Your task to perform on an android device: open app "PUBG MOBILE" Image 0: 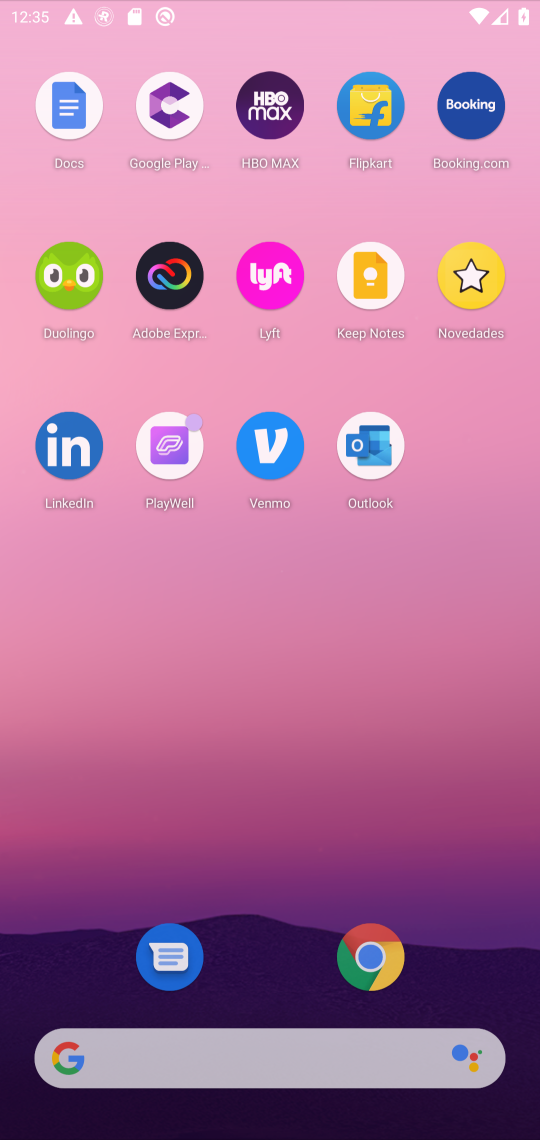
Step 0: press home button
Your task to perform on an android device: open app "PUBG MOBILE" Image 1: 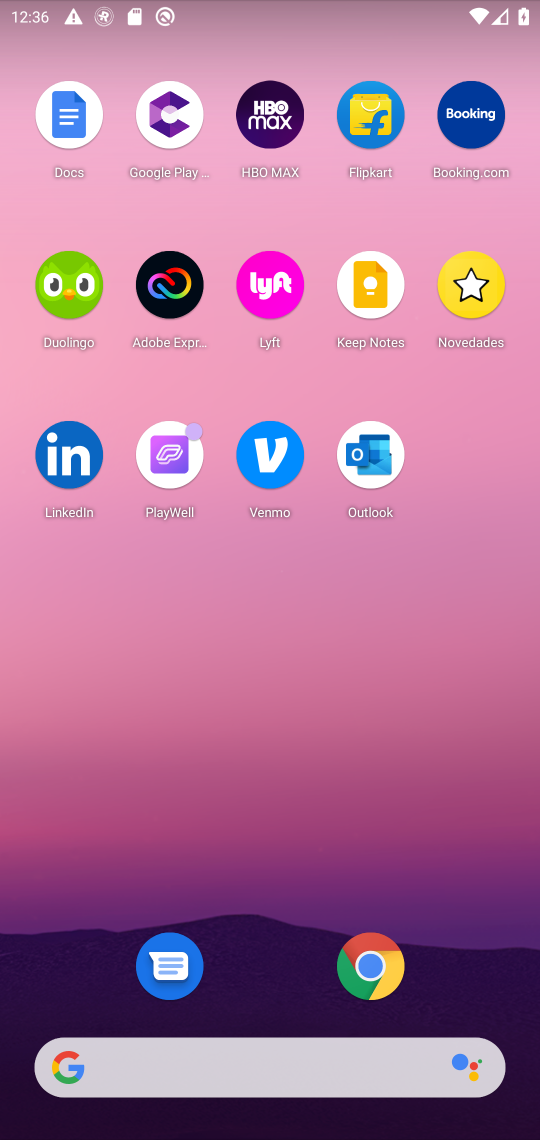
Step 1: drag from (461, 976) to (483, 101)
Your task to perform on an android device: open app "PUBG MOBILE" Image 2: 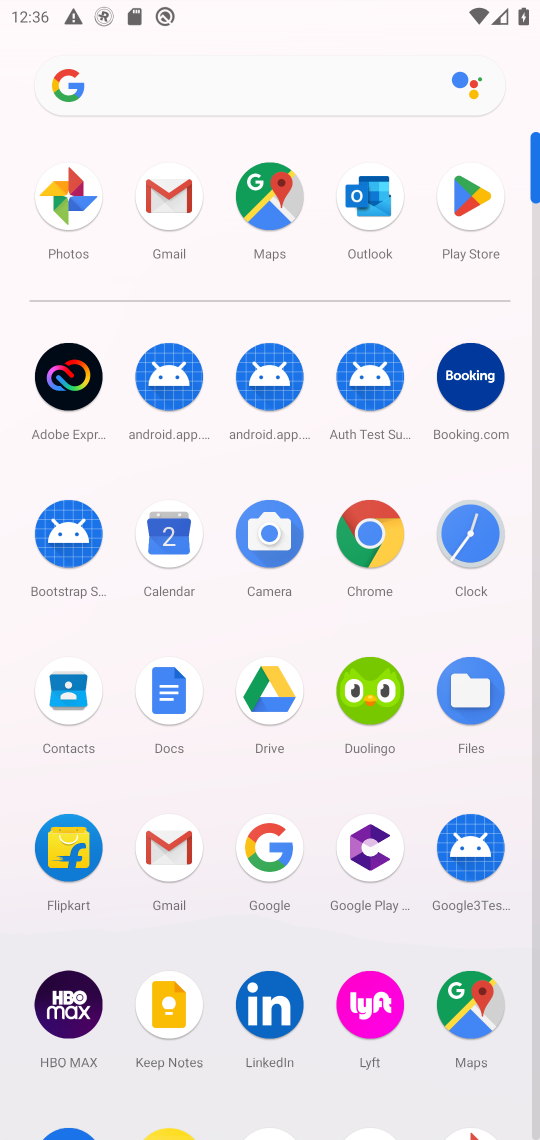
Step 2: click (464, 211)
Your task to perform on an android device: open app "PUBG MOBILE" Image 3: 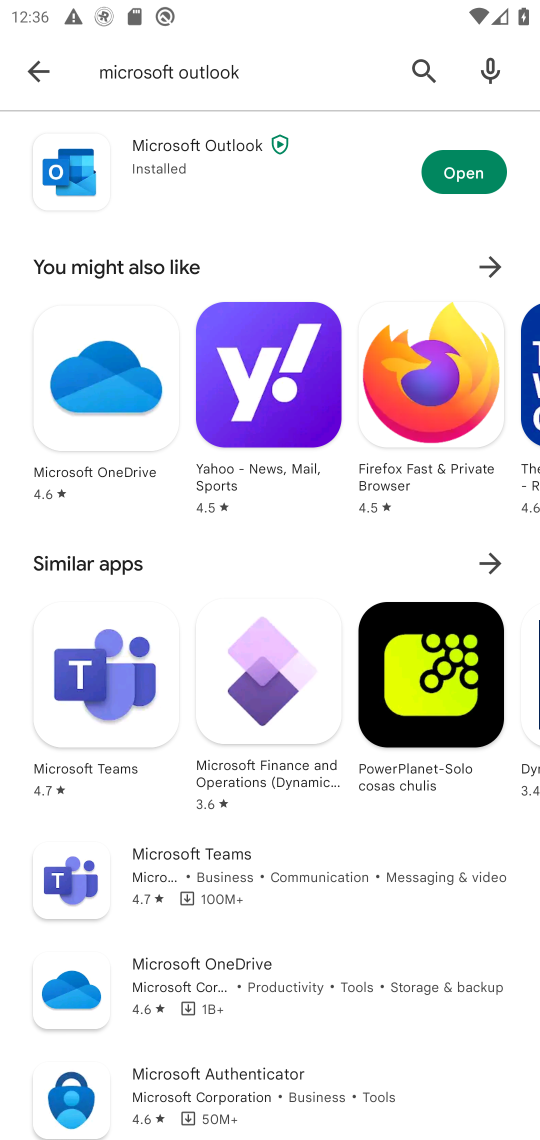
Step 3: click (412, 75)
Your task to perform on an android device: open app "PUBG MOBILE" Image 4: 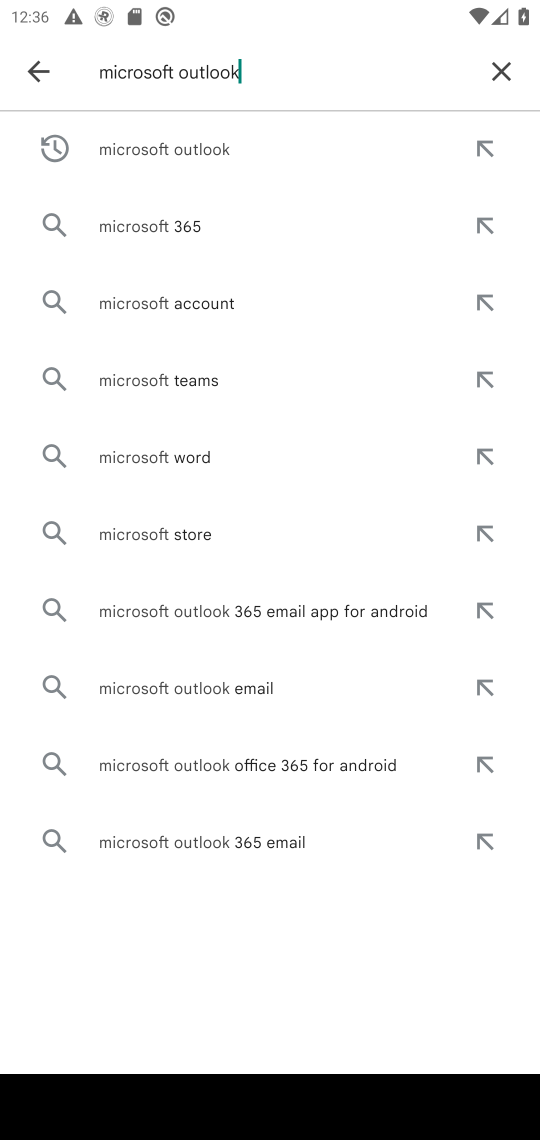
Step 4: click (514, 66)
Your task to perform on an android device: open app "PUBG MOBILE" Image 5: 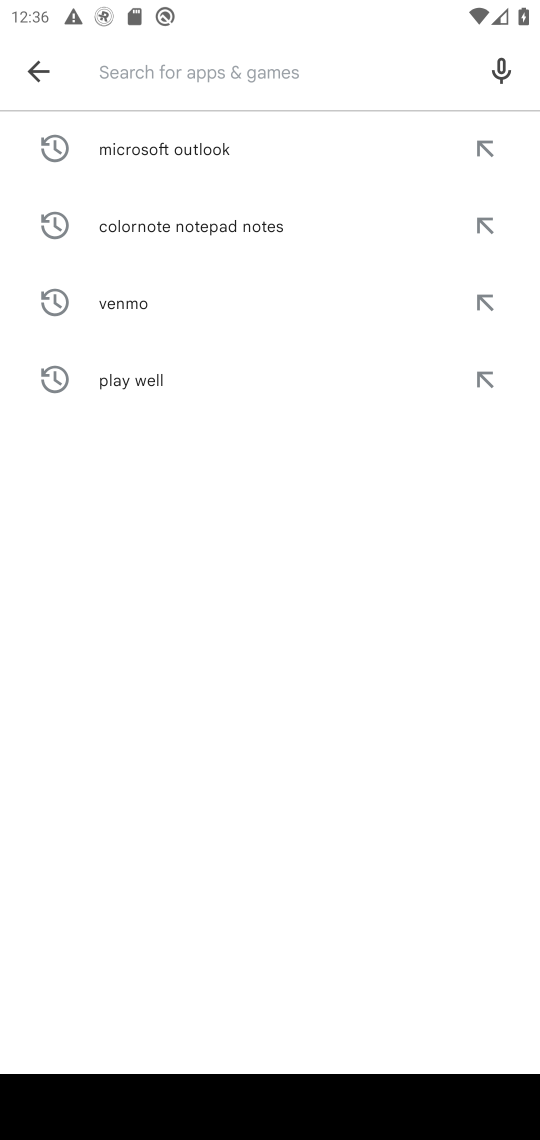
Step 5: click (301, 99)
Your task to perform on an android device: open app "PUBG MOBILE" Image 6: 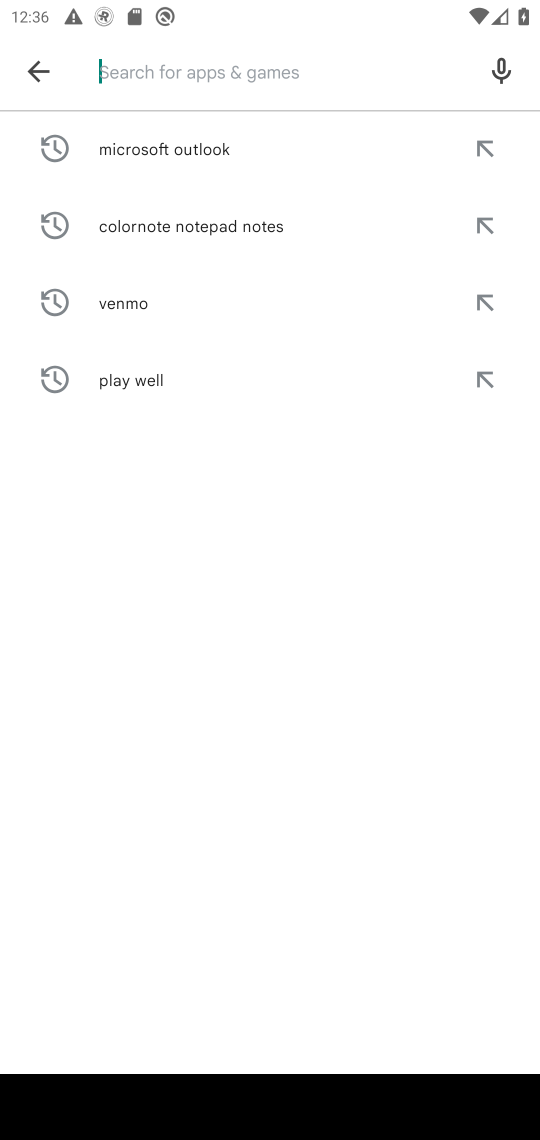
Step 6: type "pubg mobile"
Your task to perform on an android device: open app "PUBG MOBILE" Image 7: 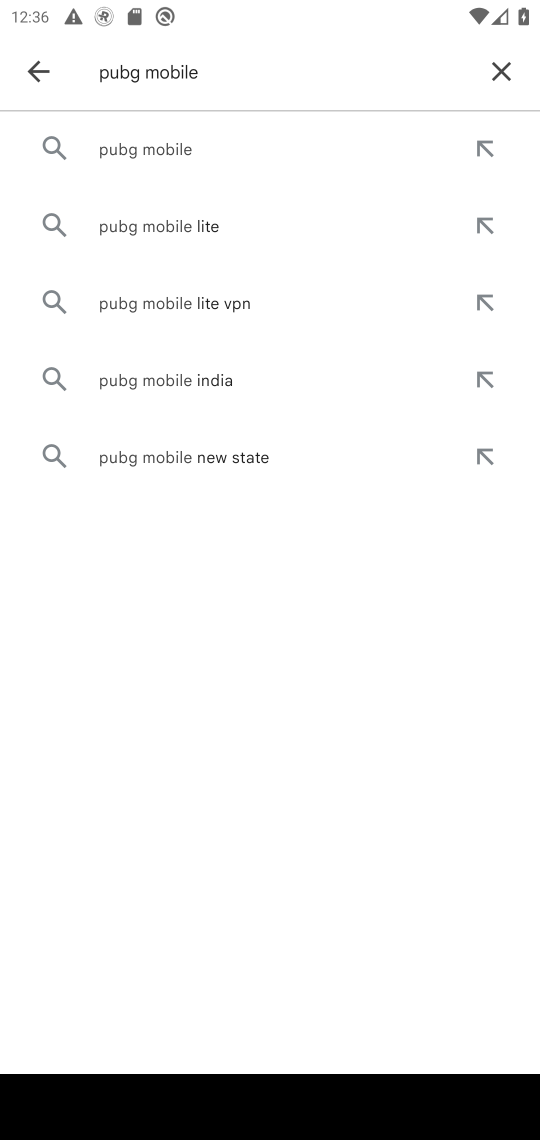
Step 7: click (188, 152)
Your task to perform on an android device: open app "PUBG MOBILE" Image 8: 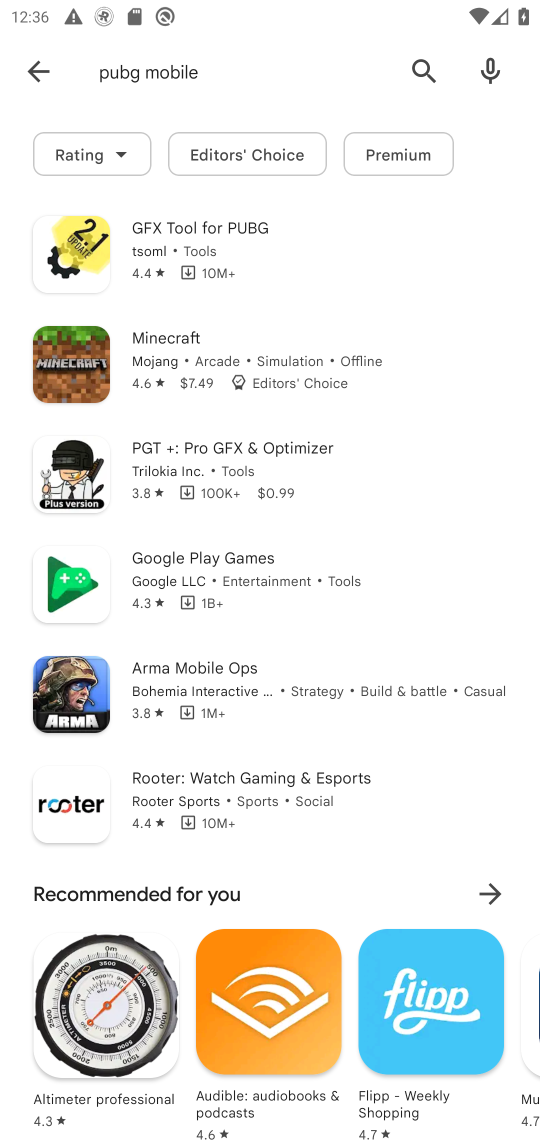
Step 8: task complete